Your task to perform on an android device: Search for sushi restaurants on Maps Image 0: 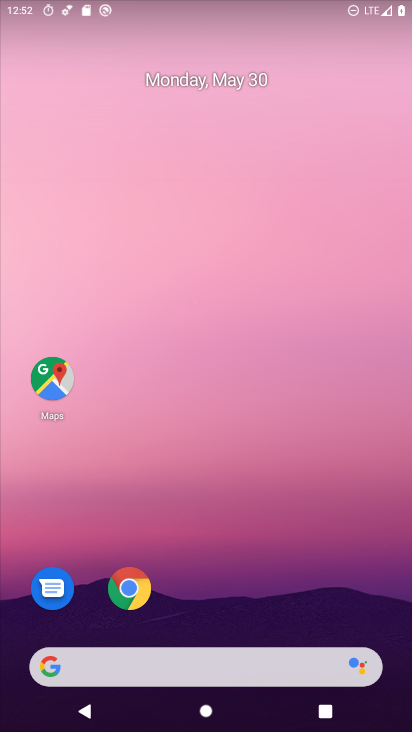
Step 0: drag from (281, 485) to (252, 109)
Your task to perform on an android device: Search for sushi restaurants on Maps Image 1: 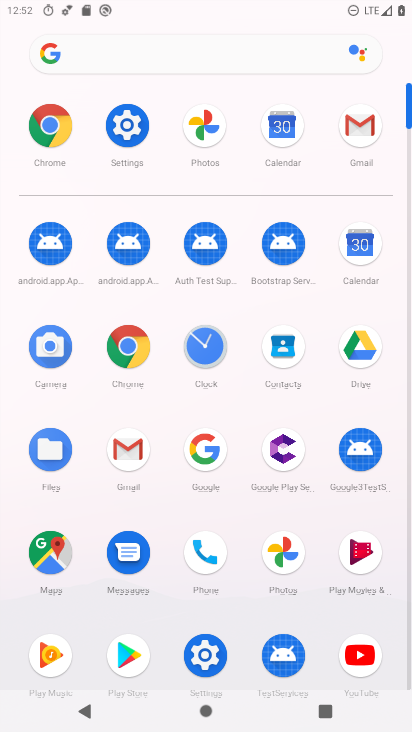
Step 1: click (49, 570)
Your task to perform on an android device: Search for sushi restaurants on Maps Image 2: 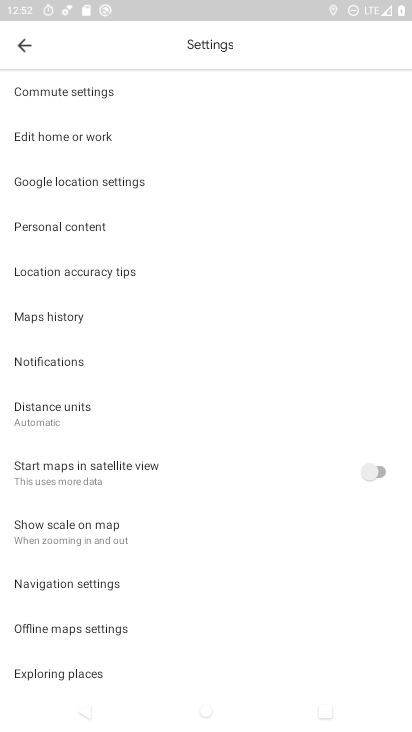
Step 2: press back button
Your task to perform on an android device: Search for sushi restaurants on Maps Image 3: 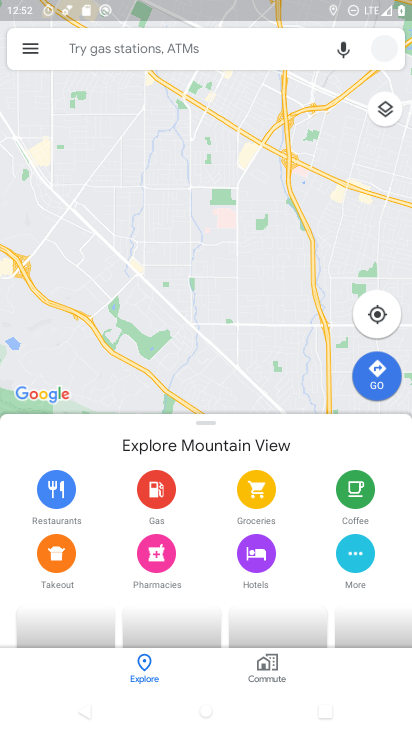
Step 3: press back button
Your task to perform on an android device: Search for sushi restaurants on Maps Image 4: 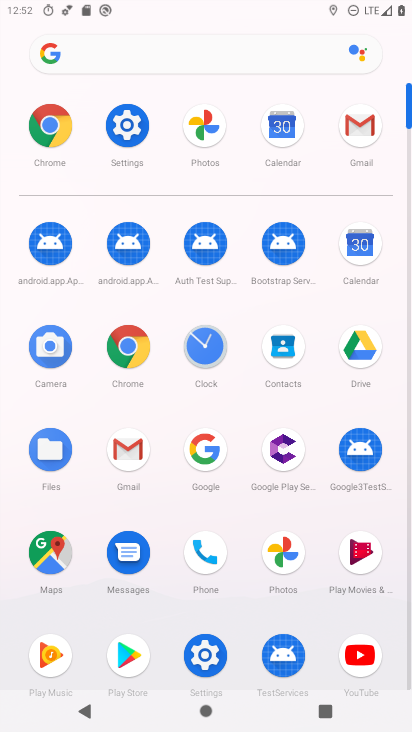
Step 4: click (200, 39)
Your task to perform on an android device: Search for sushi restaurants on Maps Image 5: 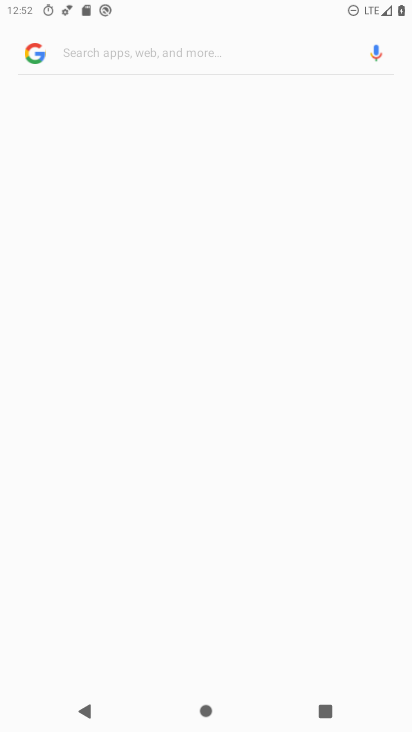
Step 5: click (28, 561)
Your task to perform on an android device: Search for sushi restaurants on Maps Image 6: 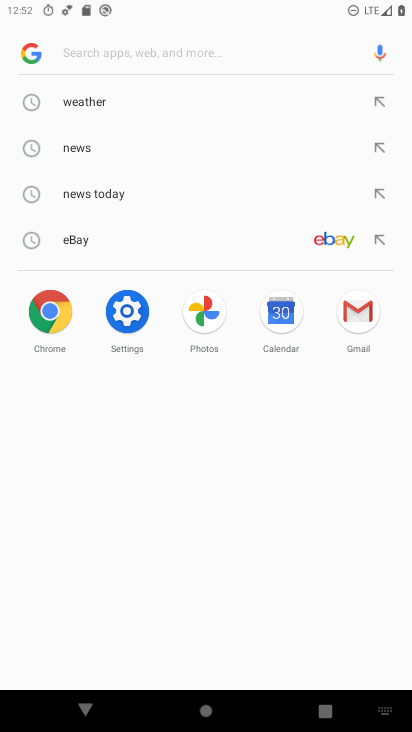
Step 6: press back button
Your task to perform on an android device: Search for sushi restaurants on Maps Image 7: 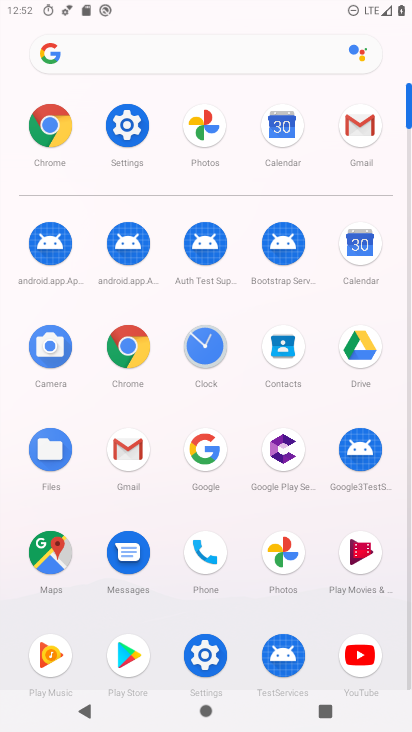
Step 7: click (50, 561)
Your task to perform on an android device: Search for sushi restaurants on Maps Image 8: 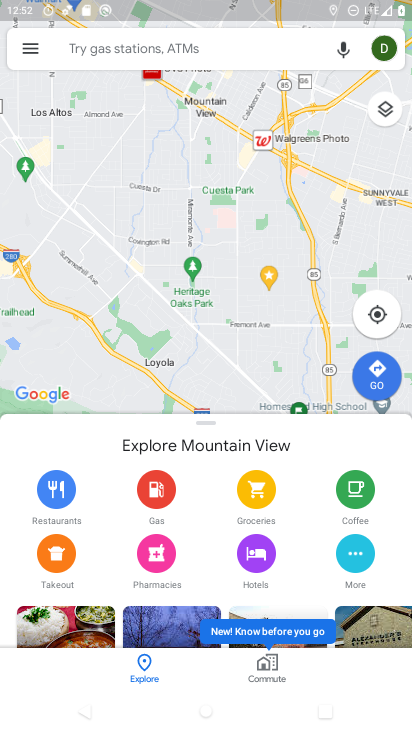
Step 8: click (122, 57)
Your task to perform on an android device: Search for sushi restaurants on Maps Image 9: 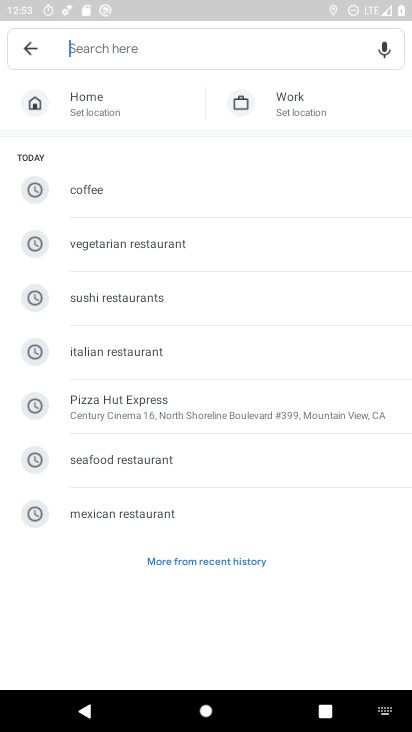
Step 9: click (171, 310)
Your task to perform on an android device: Search for sushi restaurants on Maps Image 10: 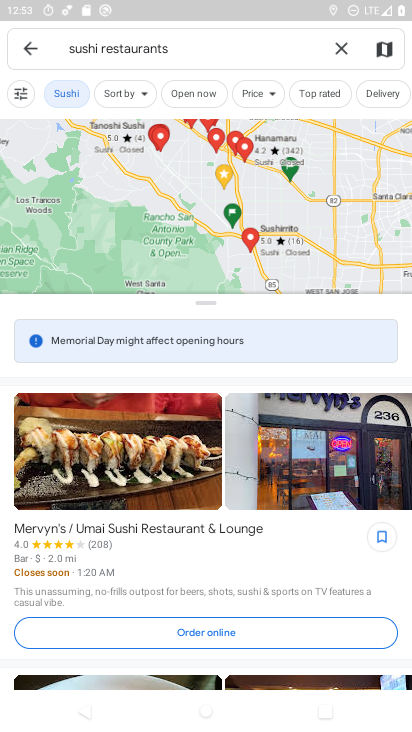
Step 10: task complete